Your task to perform on an android device: Open sound settings Image 0: 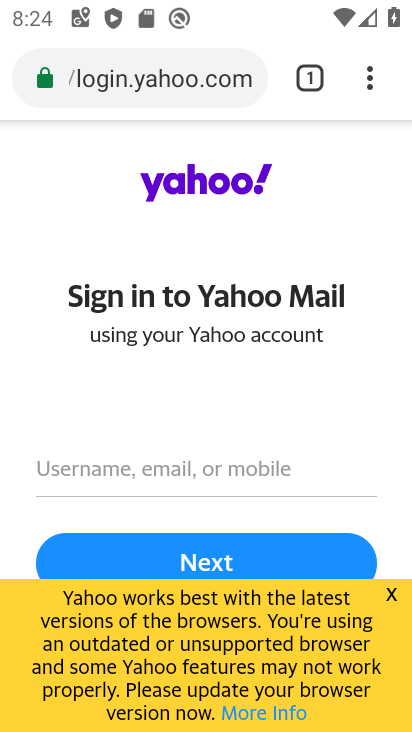
Step 0: press home button
Your task to perform on an android device: Open sound settings Image 1: 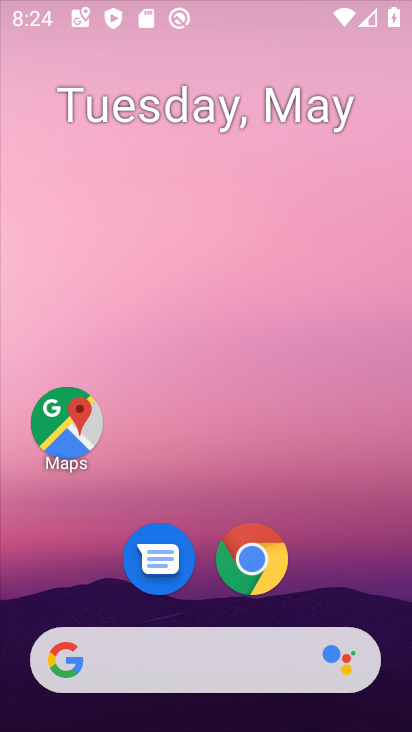
Step 1: drag from (378, 527) to (359, 114)
Your task to perform on an android device: Open sound settings Image 2: 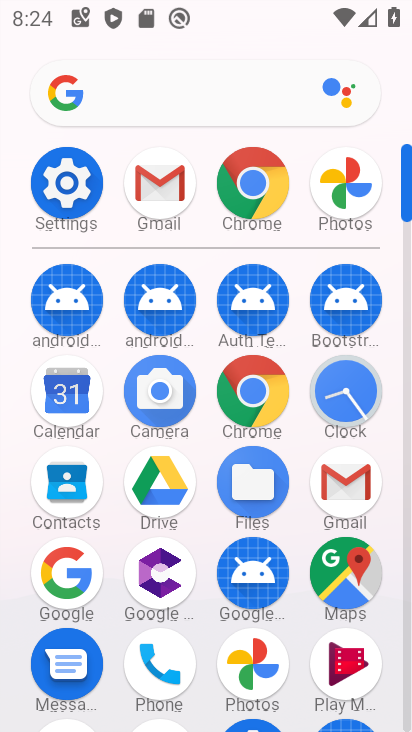
Step 2: click (52, 195)
Your task to perform on an android device: Open sound settings Image 3: 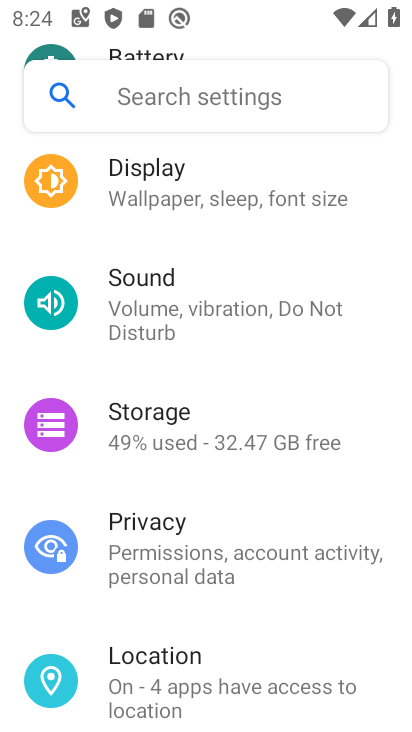
Step 3: click (157, 302)
Your task to perform on an android device: Open sound settings Image 4: 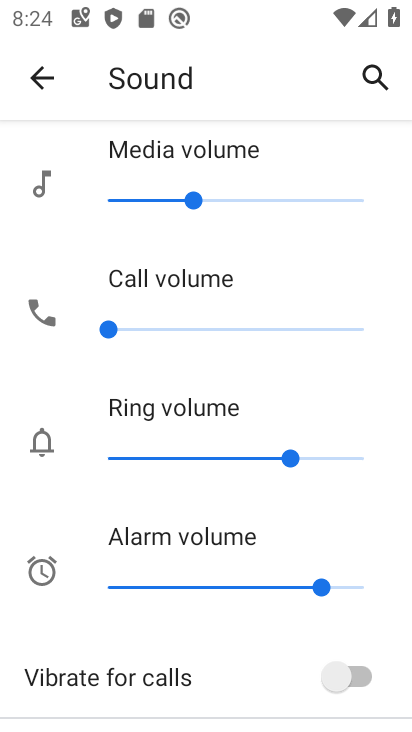
Step 4: task complete